Your task to perform on an android device: Open Google Maps Image 0: 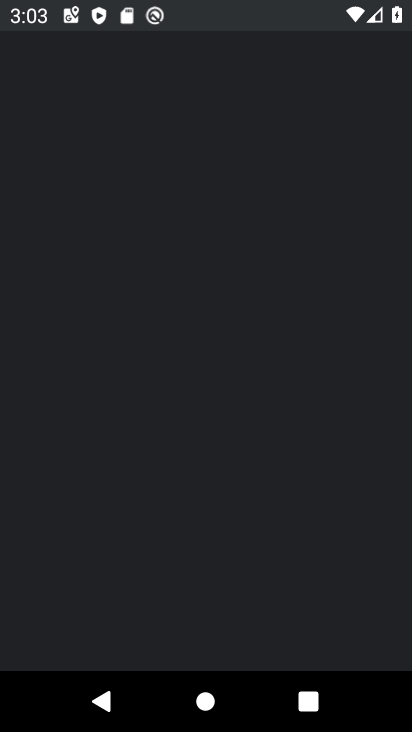
Step 0: press home button
Your task to perform on an android device: Open Google Maps Image 1: 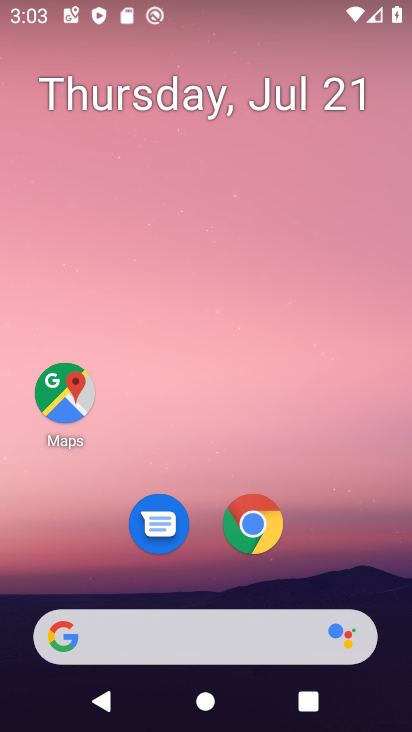
Step 1: click (64, 408)
Your task to perform on an android device: Open Google Maps Image 2: 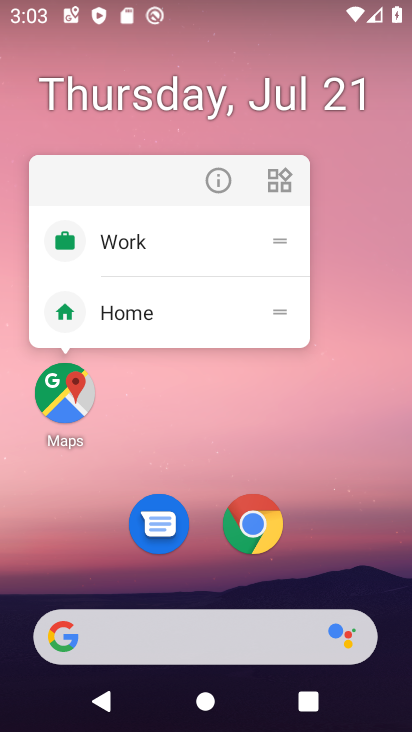
Step 2: click (63, 400)
Your task to perform on an android device: Open Google Maps Image 3: 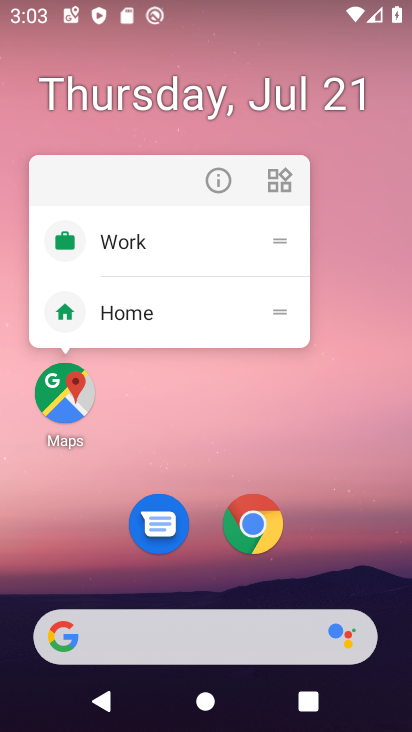
Step 3: click (61, 393)
Your task to perform on an android device: Open Google Maps Image 4: 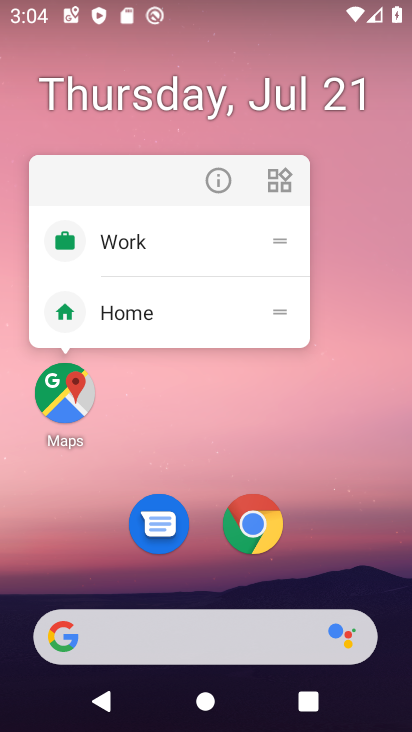
Step 4: click (72, 392)
Your task to perform on an android device: Open Google Maps Image 5: 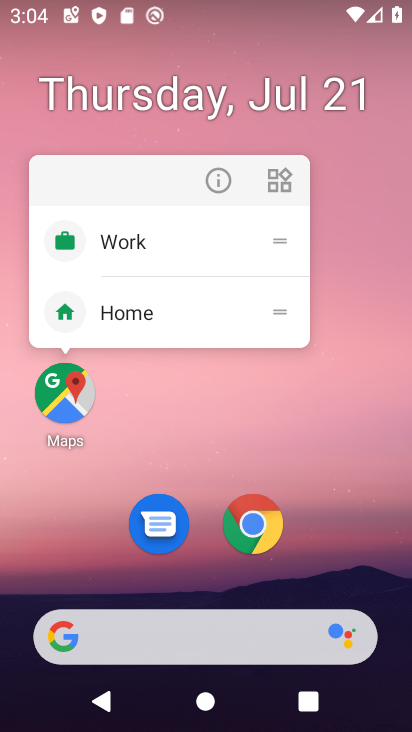
Step 5: click (65, 397)
Your task to perform on an android device: Open Google Maps Image 6: 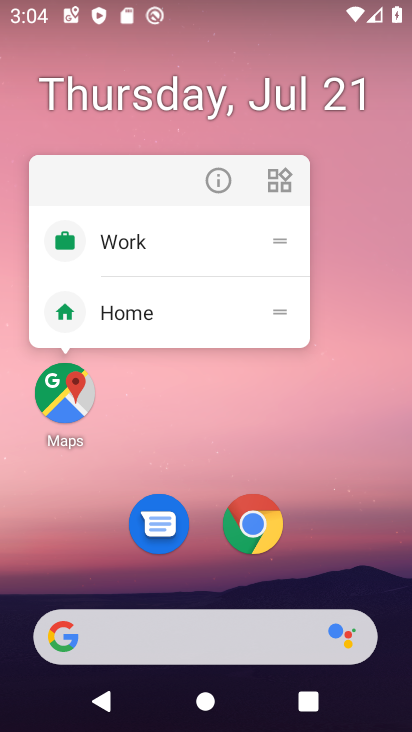
Step 6: click (64, 398)
Your task to perform on an android device: Open Google Maps Image 7: 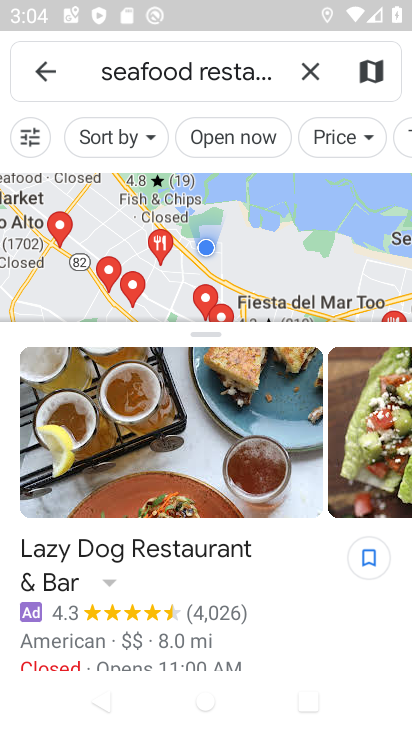
Step 7: click (53, 60)
Your task to perform on an android device: Open Google Maps Image 8: 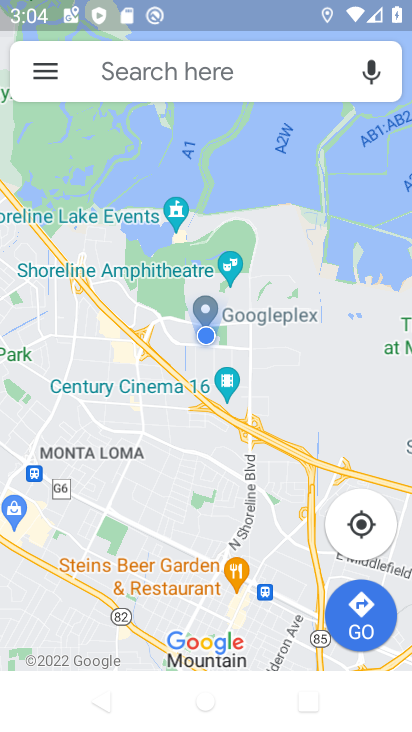
Step 8: task complete